Your task to perform on an android device: Set the phone to "Do not disturb". Image 0: 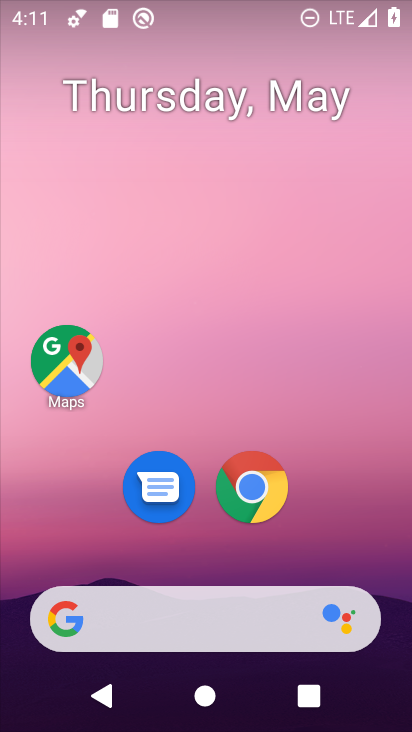
Step 0: drag from (188, 620) to (215, 176)
Your task to perform on an android device: Set the phone to "Do not disturb". Image 1: 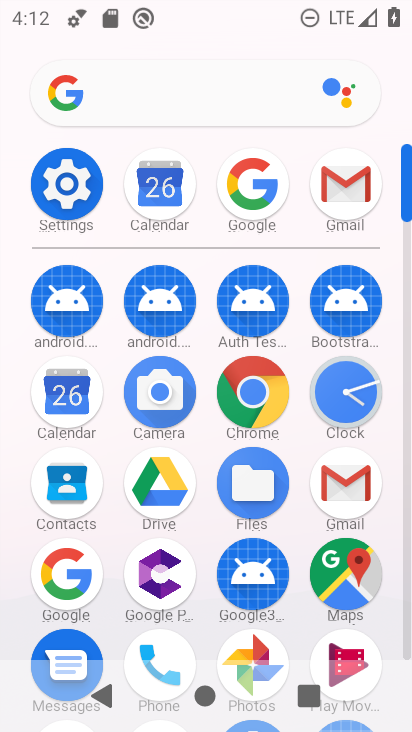
Step 1: task complete